Your task to perform on an android device: Add usb-c to usb-b to the cart on bestbuy, then select checkout. Image 0: 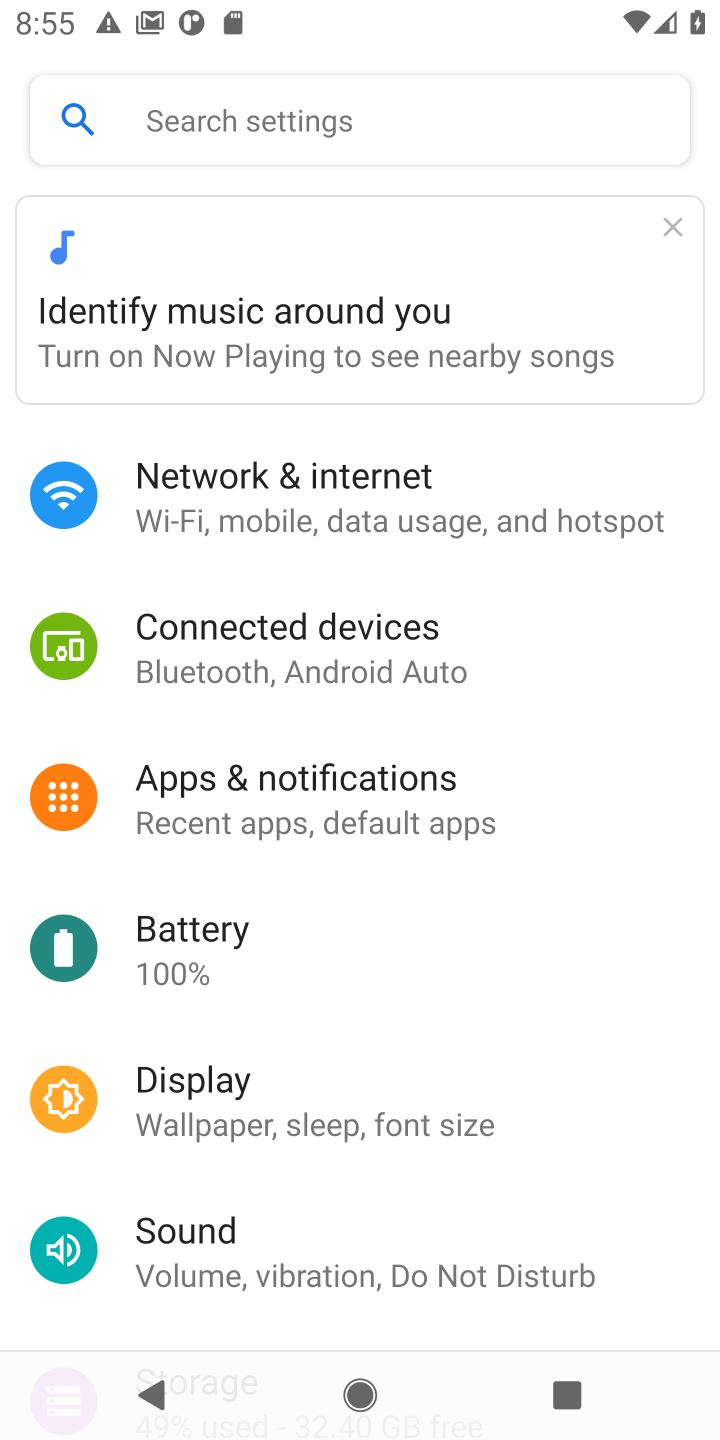
Step 0: press home button
Your task to perform on an android device: Add usb-c to usb-b to the cart on bestbuy, then select checkout. Image 1: 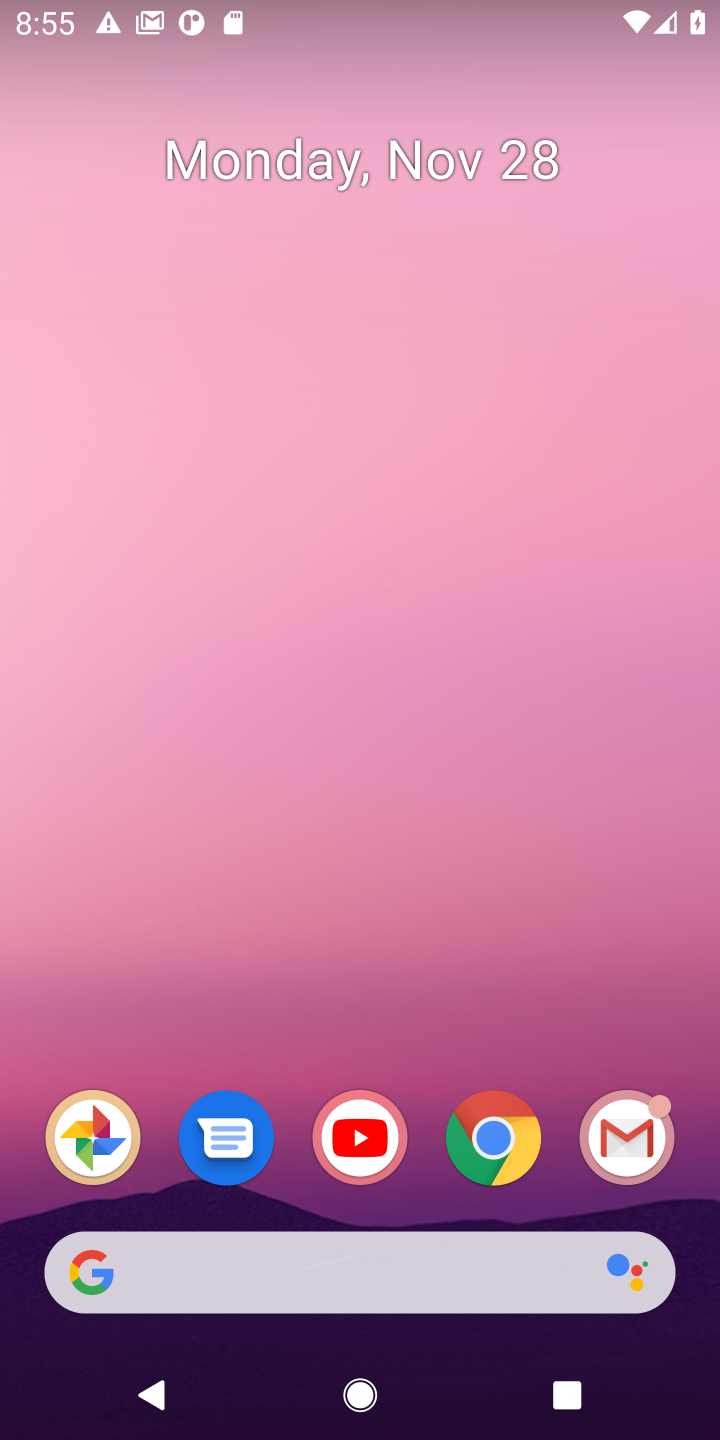
Step 1: click (492, 1143)
Your task to perform on an android device: Add usb-c to usb-b to the cart on bestbuy, then select checkout. Image 2: 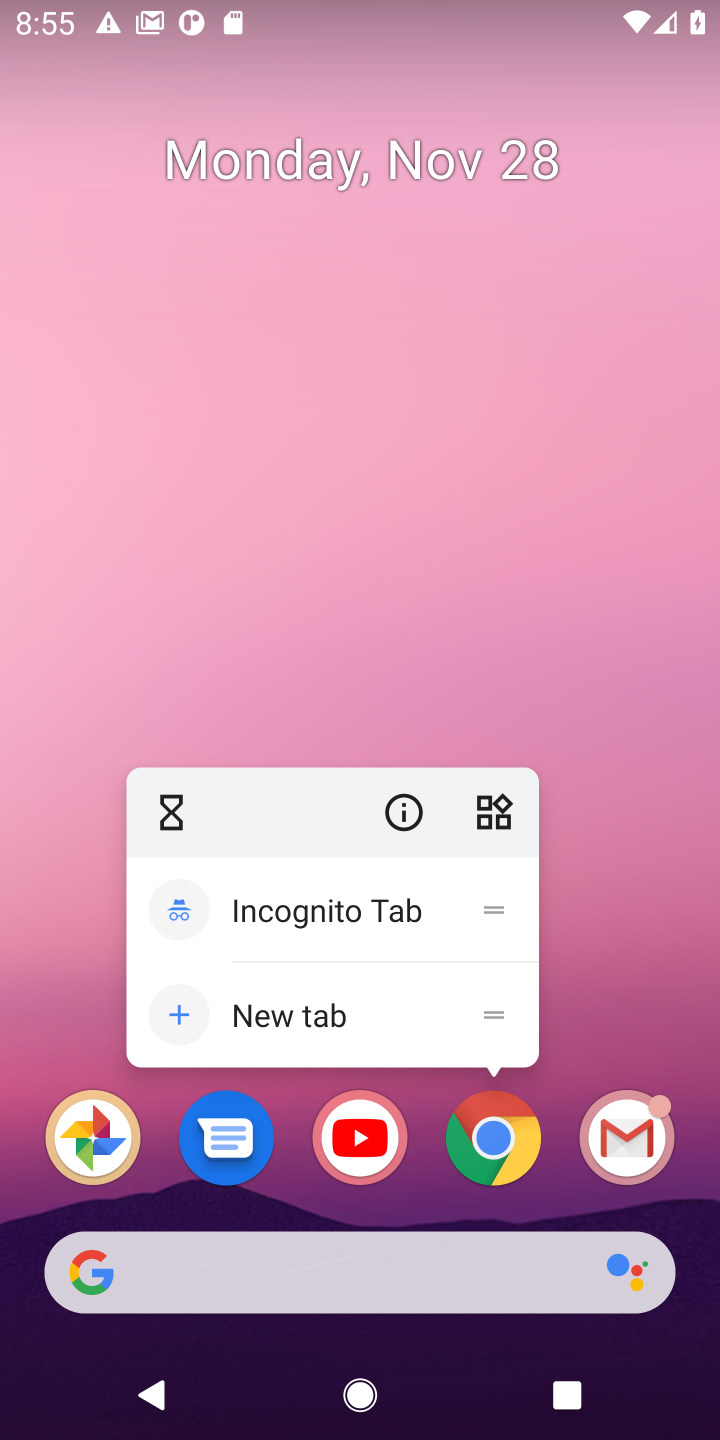
Step 2: click (492, 1143)
Your task to perform on an android device: Add usb-c to usb-b to the cart on bestbuy, then select checkout. Image 3: 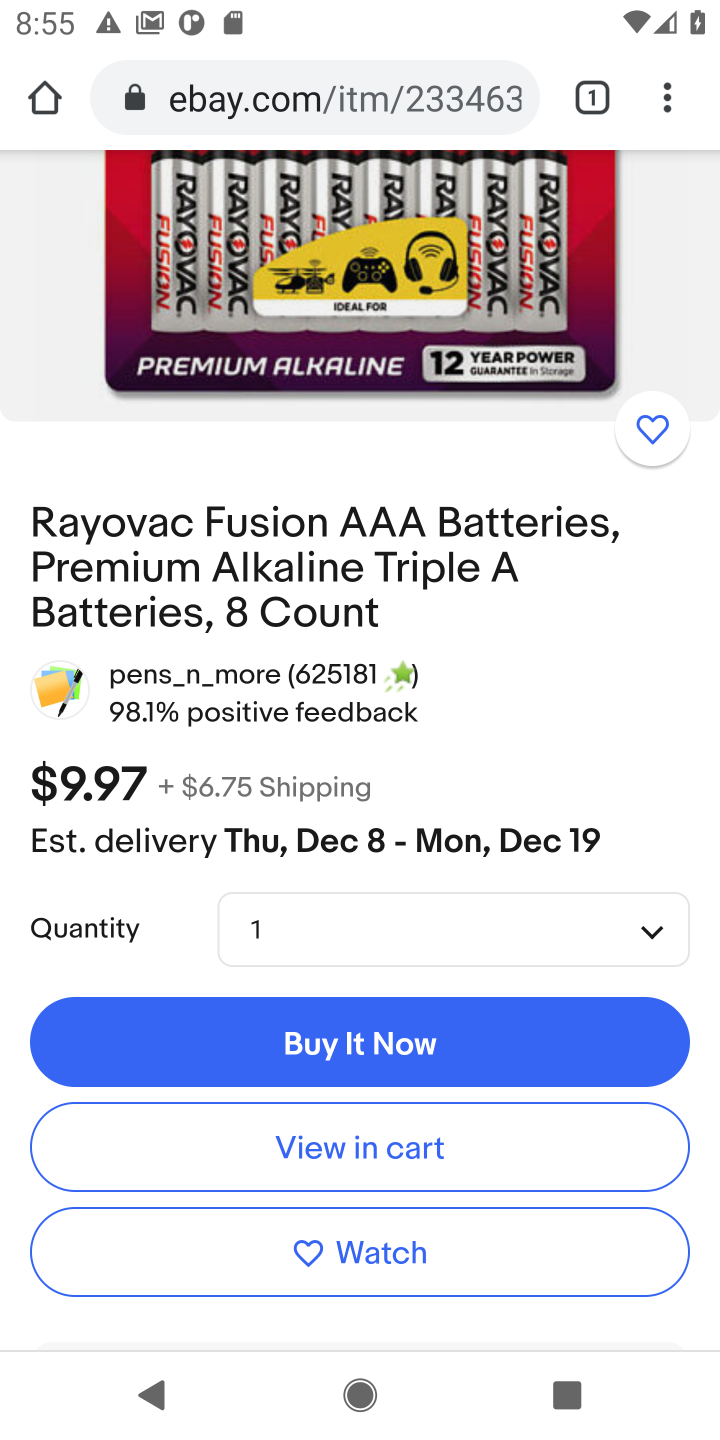
Step 3: click (289, 94)
Your task to perform on an android device: Add usb-c to usb-b to the cart on bestbuy, then select checkout. Image 4: 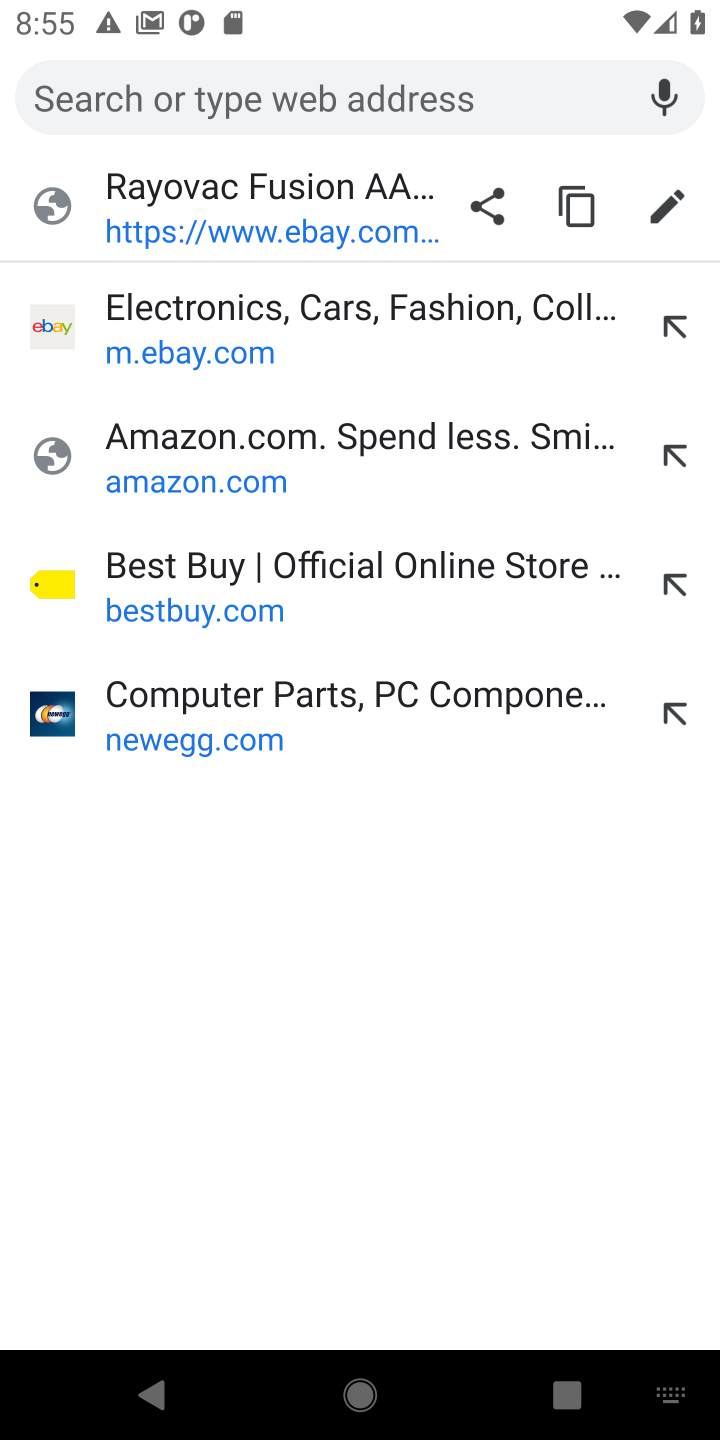
Step 4: click (141, 560)
Your task to perform on an android device: Add usb-c to usb-b to the cart on bestbuy, then select checkout. Image 5: 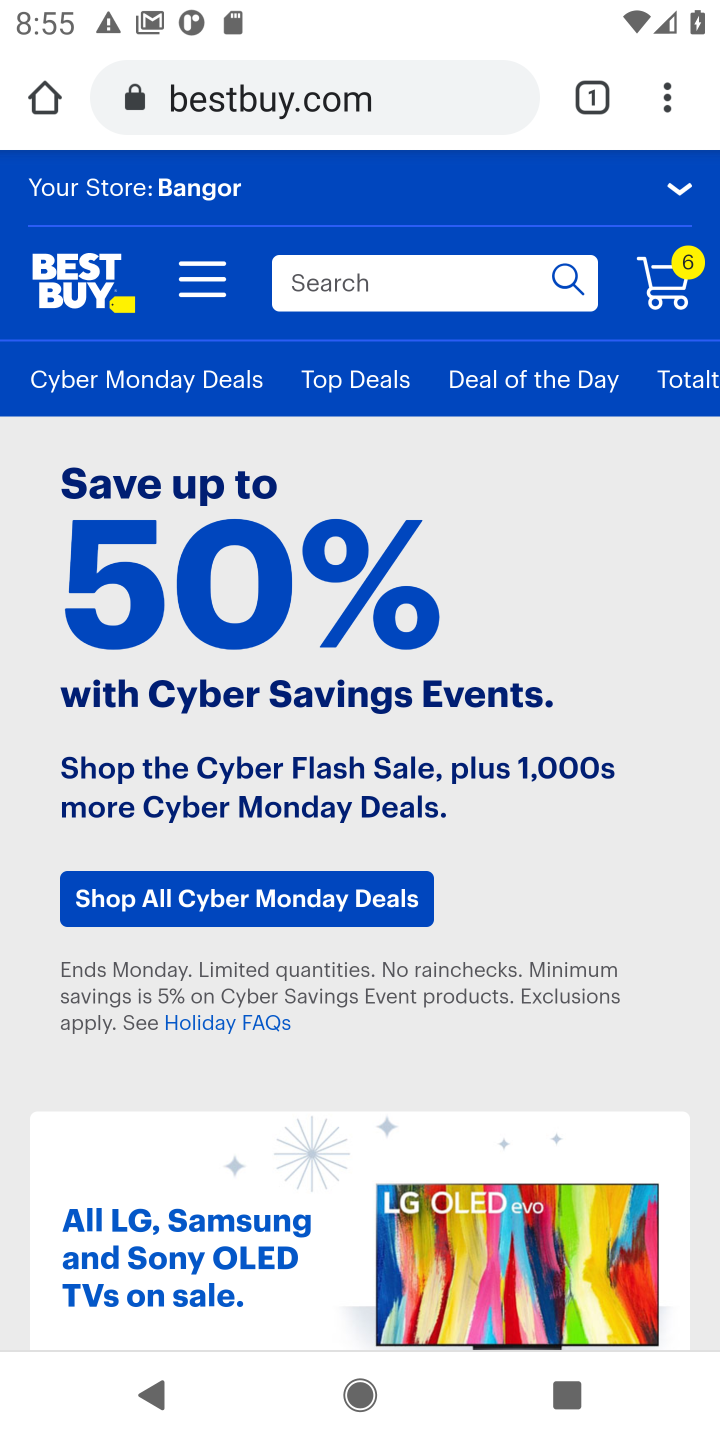
Step 5: click (375, 284)
Your task to perform on an android device: Add usb-c to usb-b to the cart on bestbuy, then select checkout. Image 6: 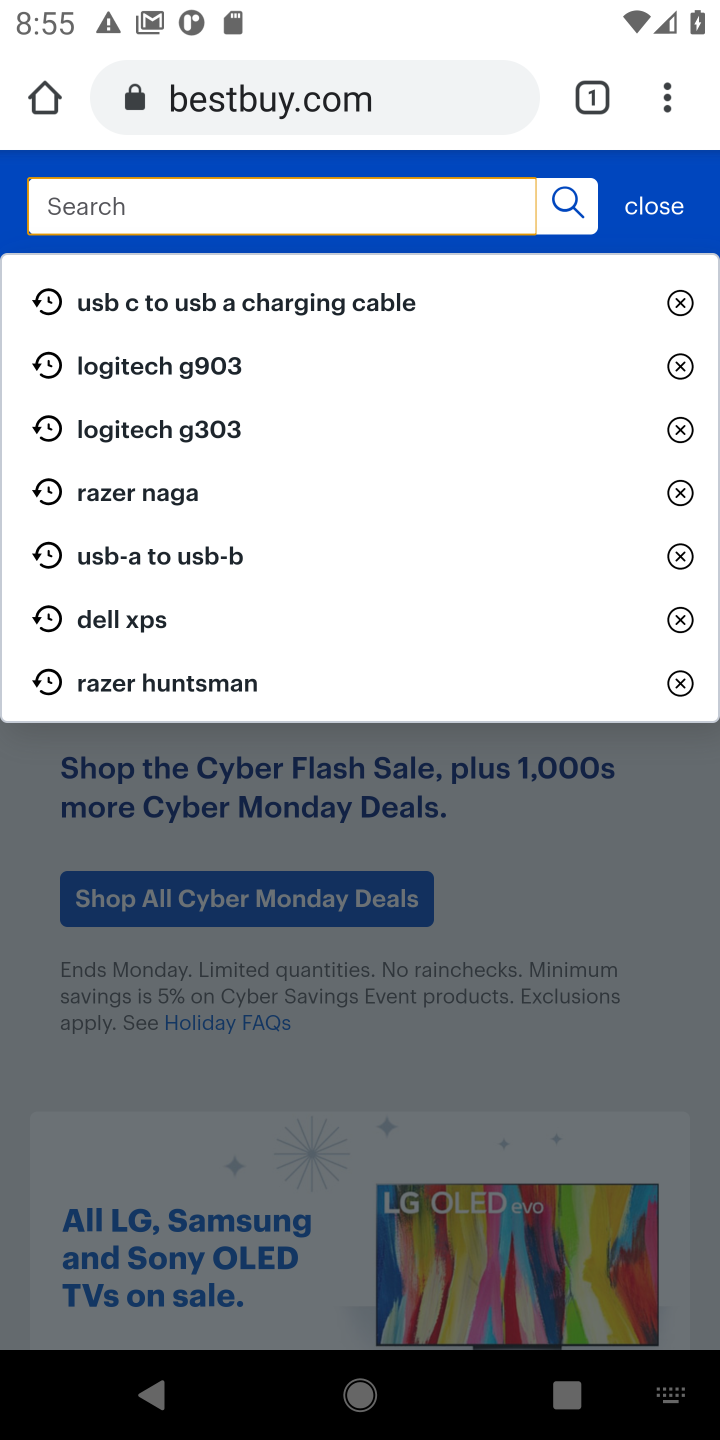
Step 6: type "usb-c to usb-b"
Your task to perform on an android device: Add usb-c to usb-b to the cart on bestbuy, then select checkout. Image 7: 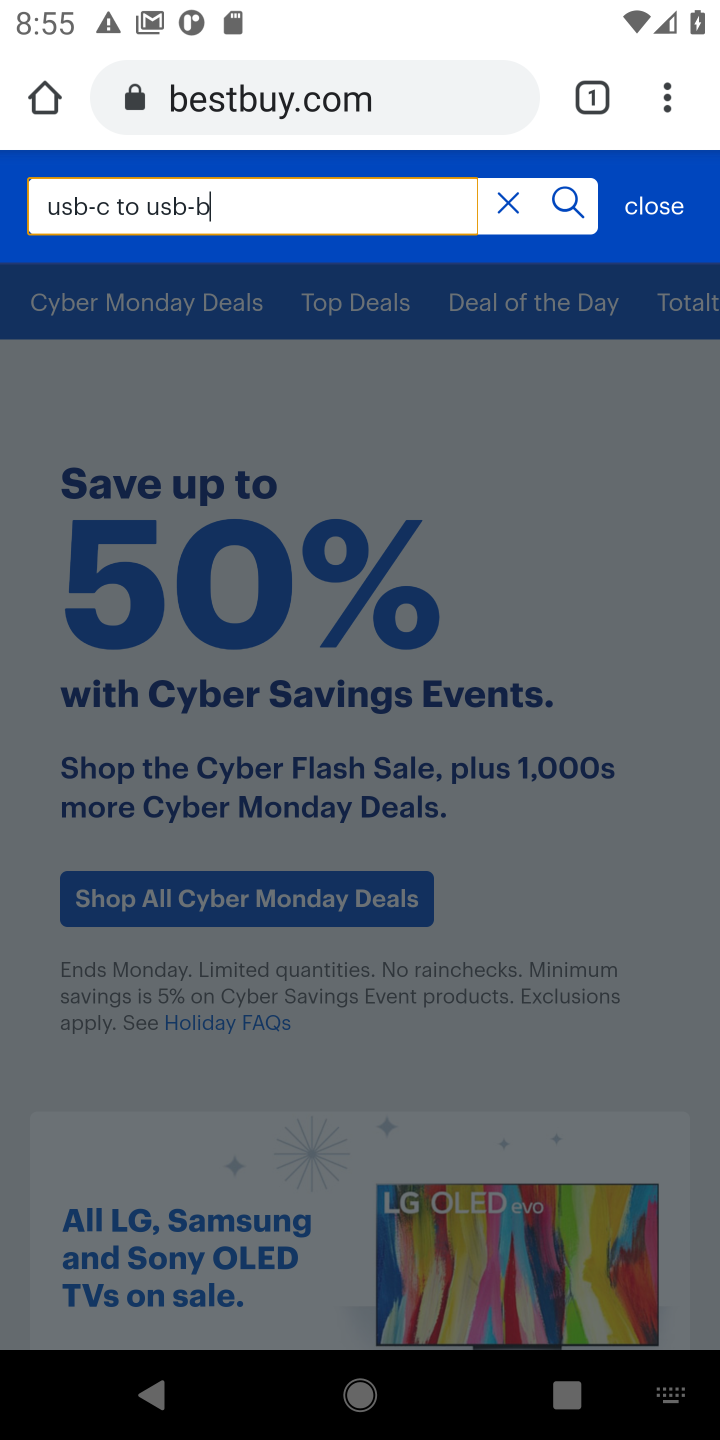
Step 7: click (571, 207)
Your task to perform on an android device: Add usb-c to usb-b to the cart on bestbuy, then select checkout. Image 8: 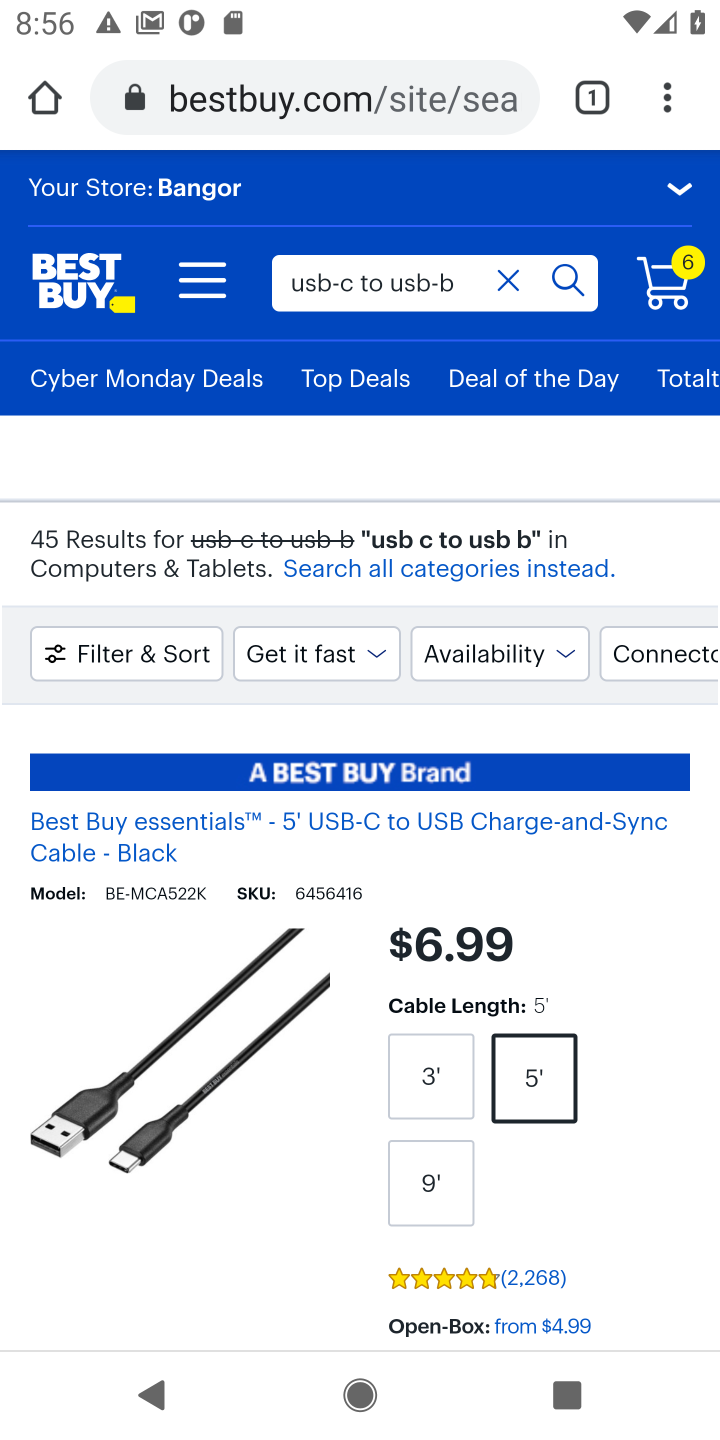
Step 8: task complete